Your task to perform on an android device: open app "LinkedIn" (install if not already installed) and go to login screen Image 0: 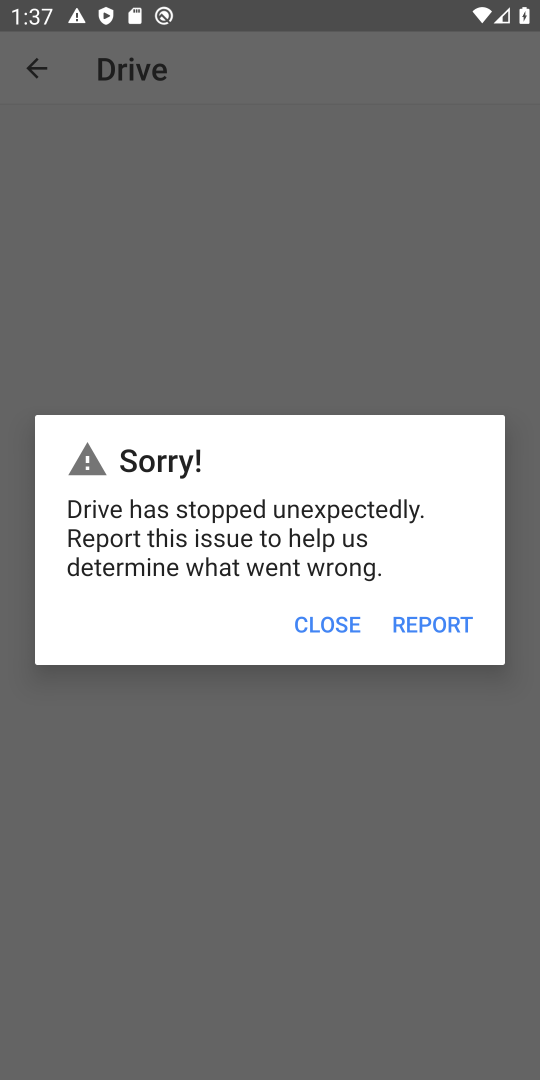
Step 0: press back button
Your task to perform on an android device: open app "LinkedIn" (install if not already installed) and go to login screen Image 1: 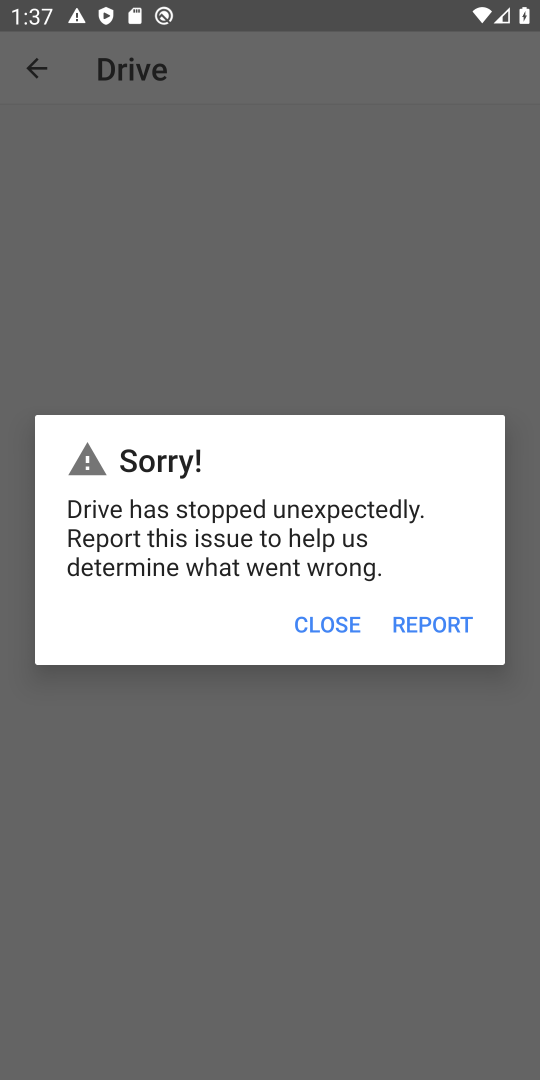
Step 1: press home button
Your task to perform on an android device: open app "LinkedIn" (install if not already installed) and go to login screen Image 2: 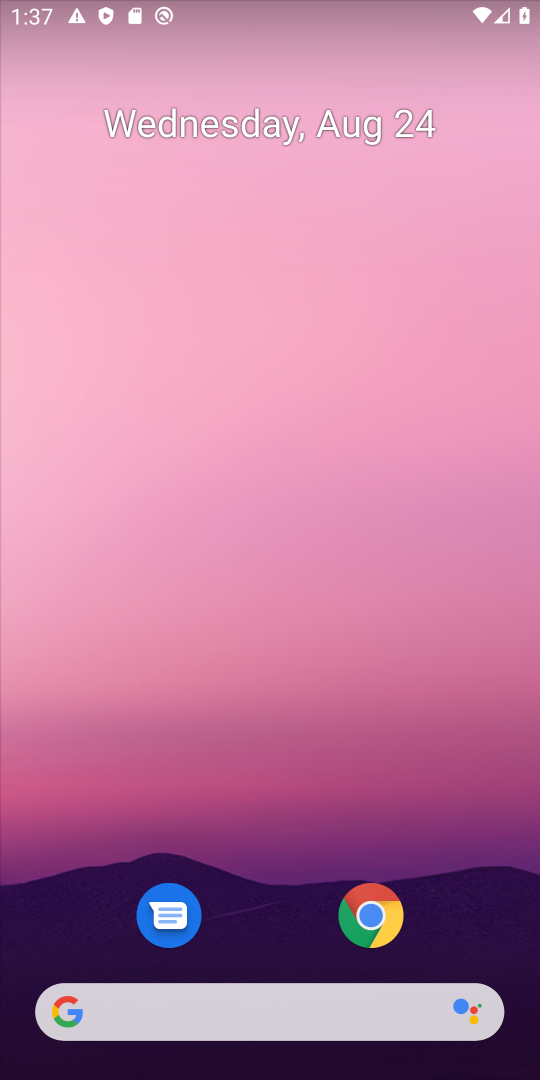
Step 2: drag from (254, 820) to (266, 155)
Your task to perform on an android device: open app "LinkedIn" (install if not already installed) and go to login screen Image 3: 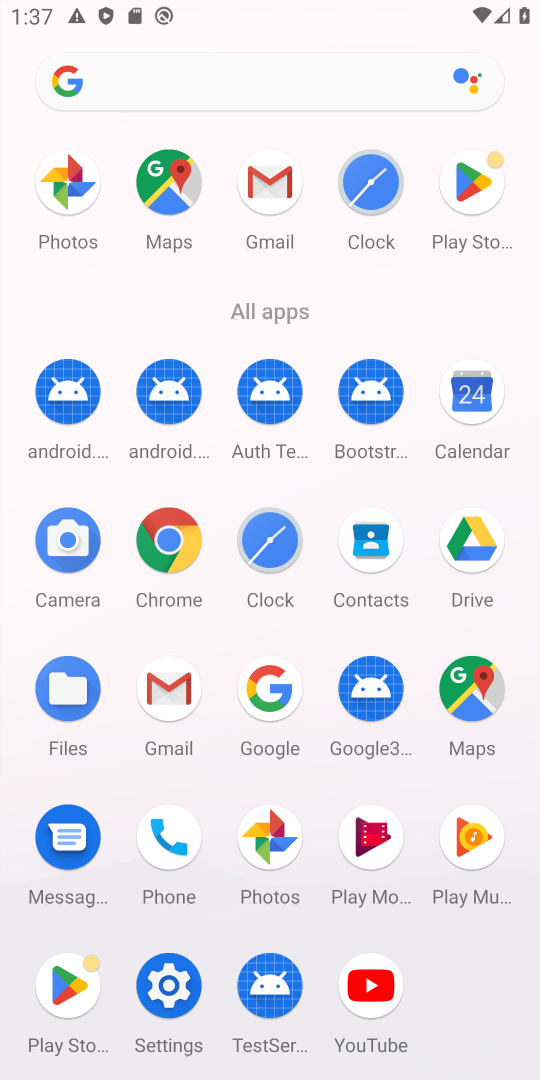
Step 3: click (474, 182)
Your task to perform on an android device: open app "LinkedIn" (install if not already installed) and go to login screen Image 4: 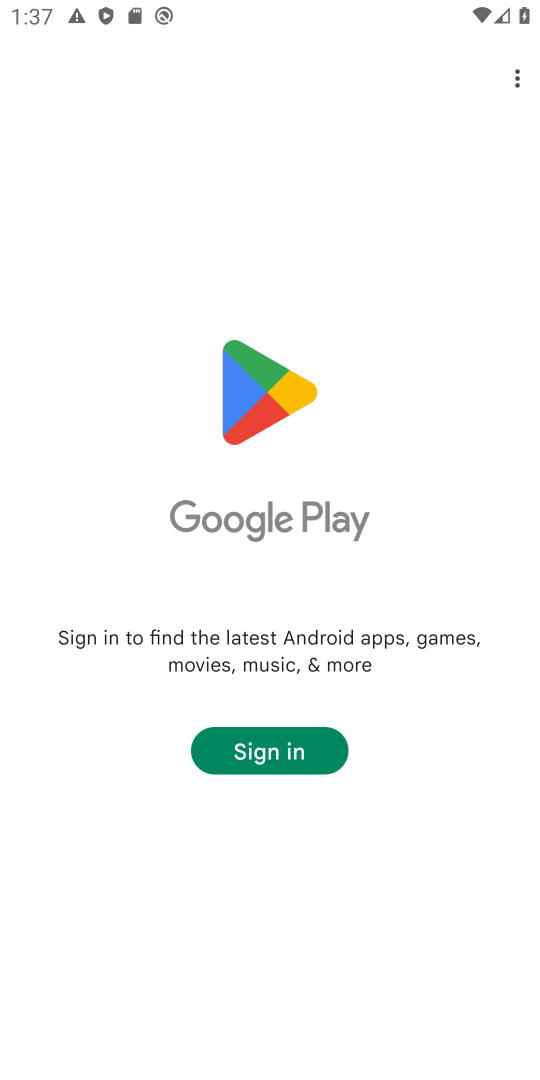
Step 4: click (289, 763)
Your task to perform on an android device: open app "LinkedIn" (install if not already installed) and go to login screen Image 5: 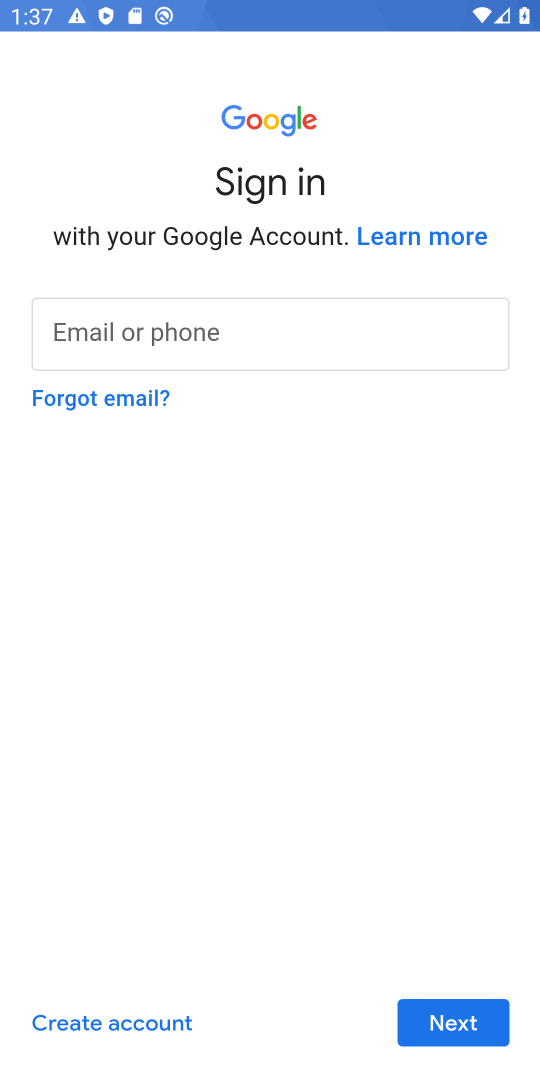
Step 5: task complete